Your task to perform on an android device: Go to display settings Image 0: 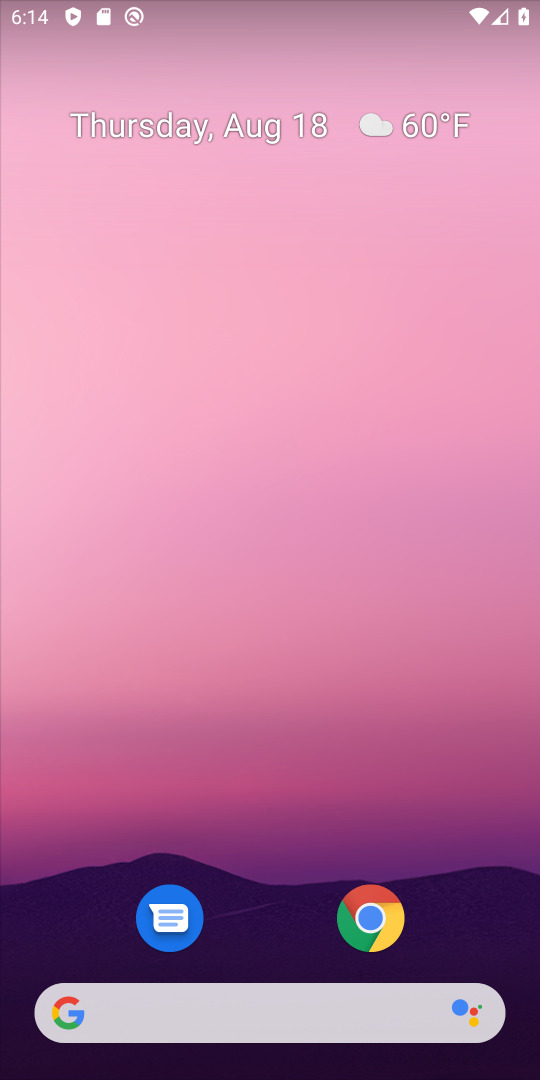
Step 0: press home button
Your task to perform on an android device: Go to display settings Image 1: 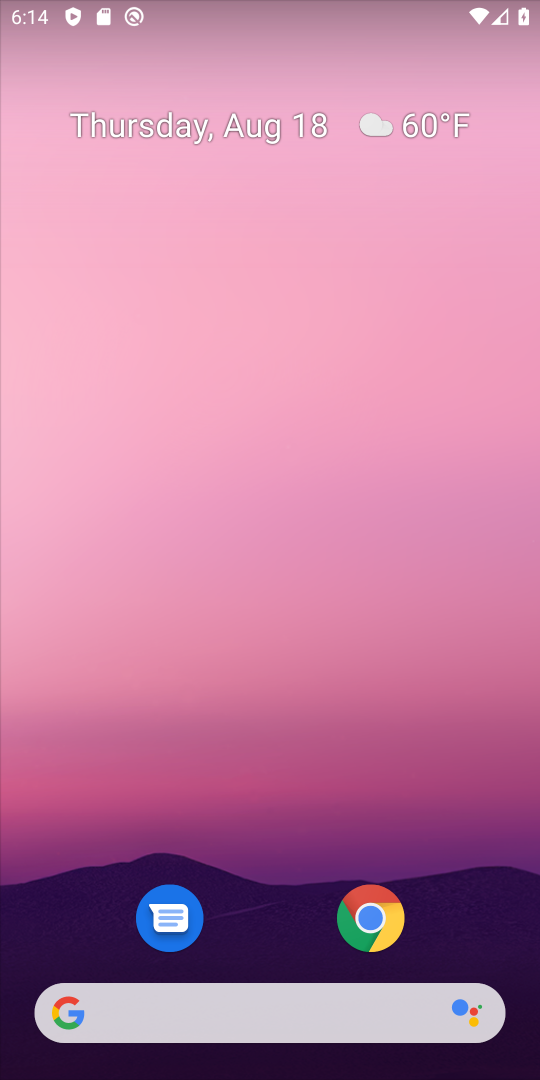
Step 1: drag from (279, 730) to (283, 205)
Your task to perform on an android device: Go to display settings Image 2: 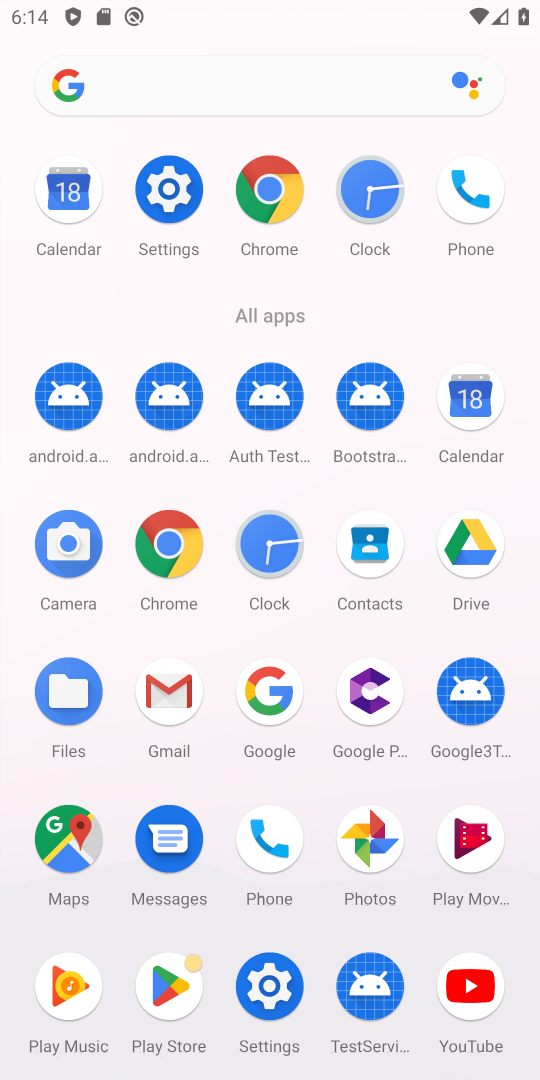
Step 2: click (162, 190)
Your task to perform on an android device: Go to display settings Image 3: 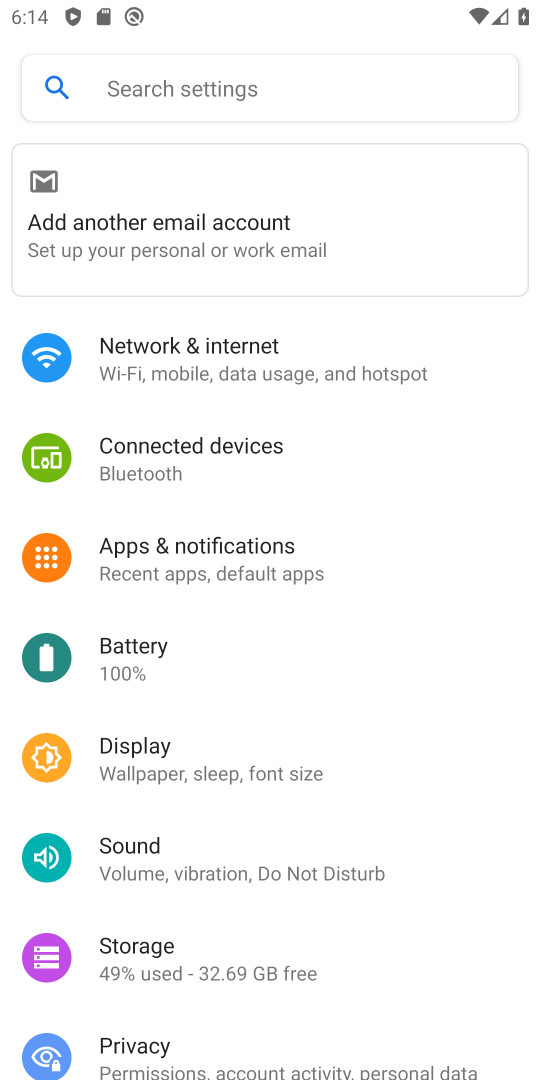
Step 3: click (127, 757)
Your task to perform on an android device: Go to display settings Image 4: 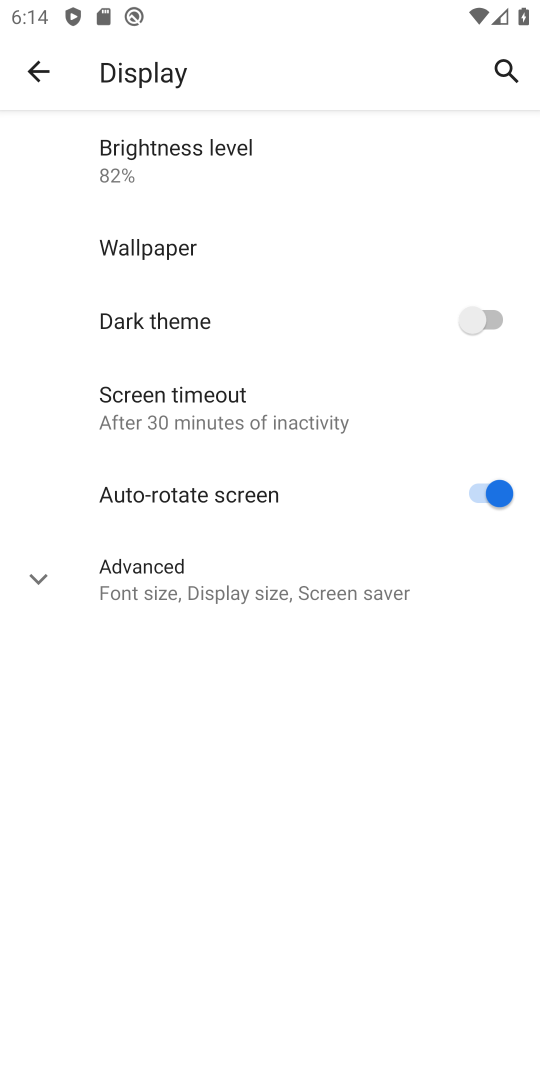
Step 4: task complete